Your task to perform on an android device: change the clock display to analog Image 0: 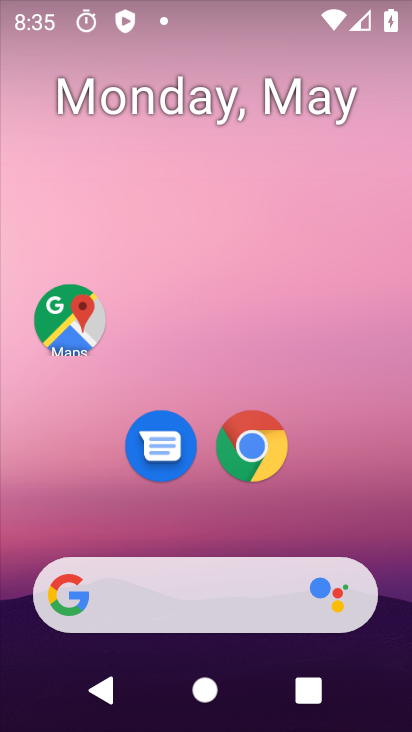
Step 0: drag from (383, 496) to (356, 0)
Your task to perform on an android device: change the clock display to analog Image 1: 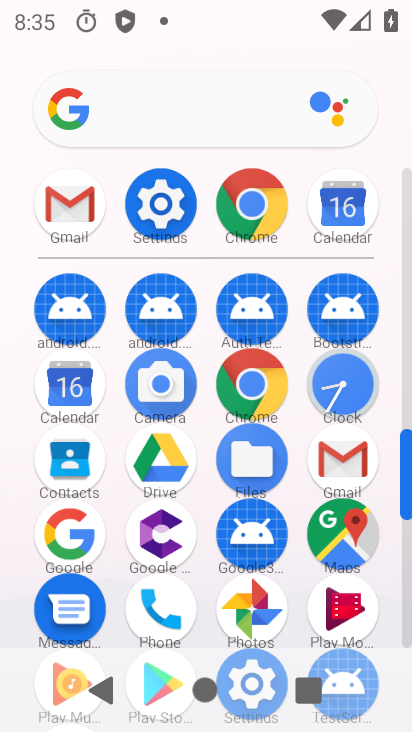
Step 1: click (336, 384)
Your task to perform on an android device: change the clock display to analog Image 2: 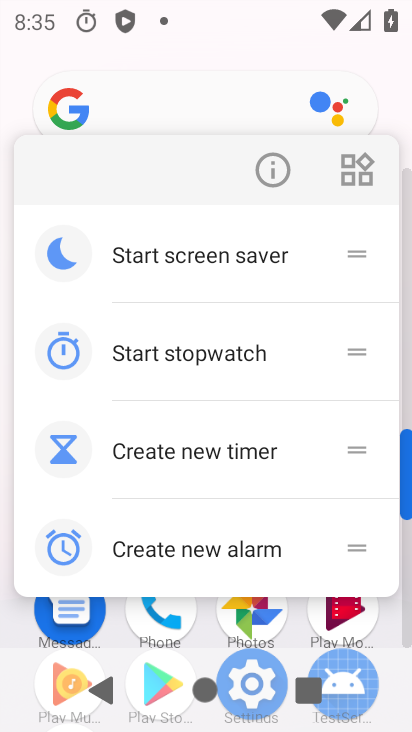
Step 2: click (407, 129)
Your task to perform on an android device: change the clock display to analog Image 3: 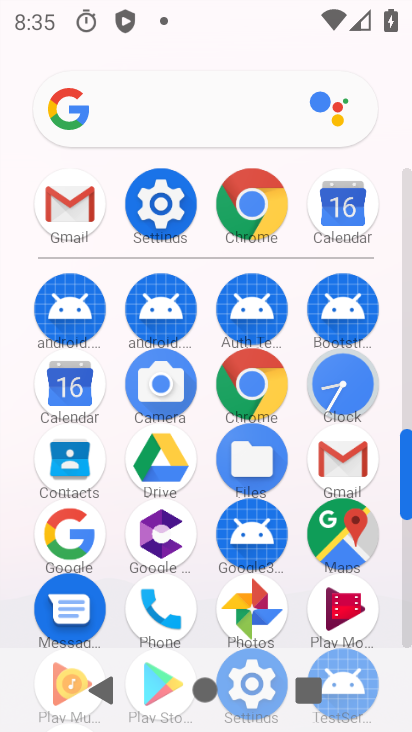
Step 3: click (341, 392)
Your task to perform on an android device: change the clock display to analog Image 4: 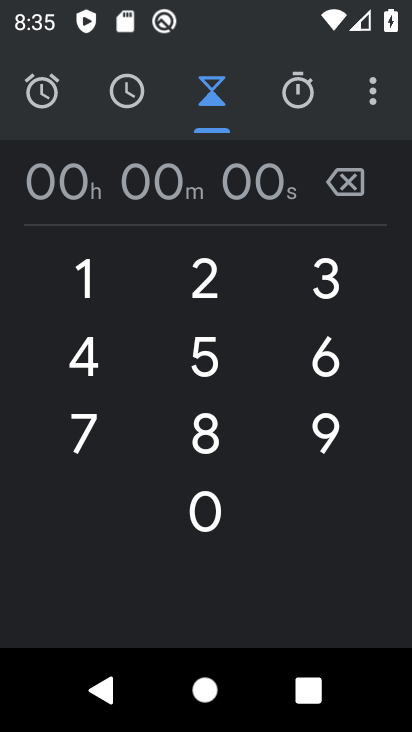
Step 4: click (374, 95)
Your task to perform on an android device: change the clock display to analog Image 5: 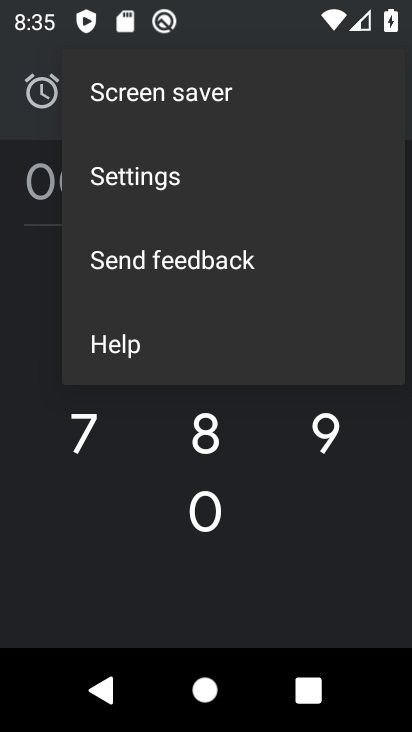
Step 5: click (184, 186)
Your task to perform on an android device: change the clock display to analog Image 6: 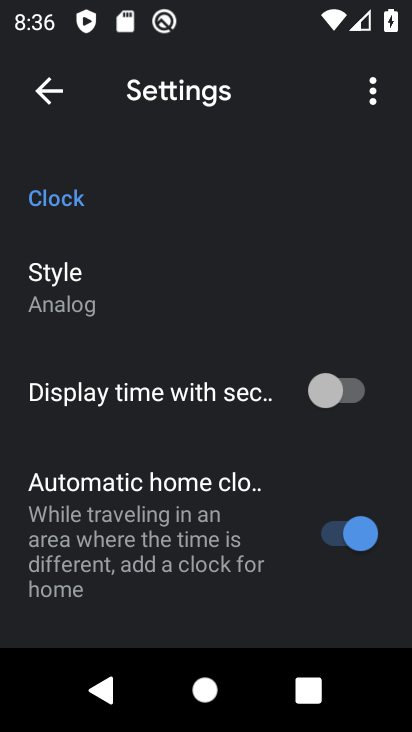
Step 6: task complete